Your task to perform on an android device: Open the stopwatch Image 0: 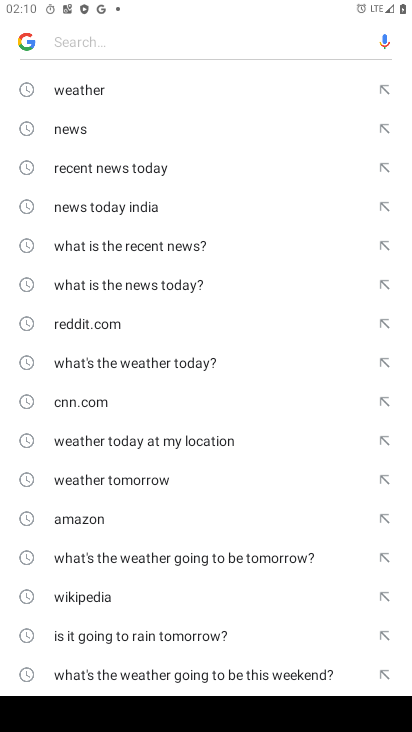
Step 0: press home button
Your task to perform on an android device: Open the stopwatch Image 1: 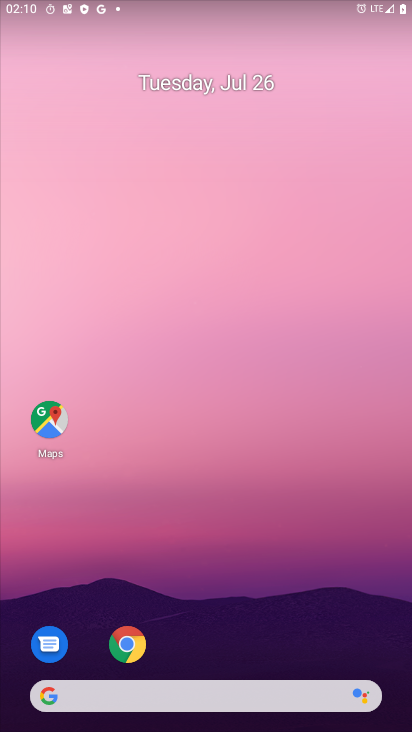
Step 1: drag from (260, 668) to (240, 43)
Your task to perform on an android device: Open the stopwatch Image 2: 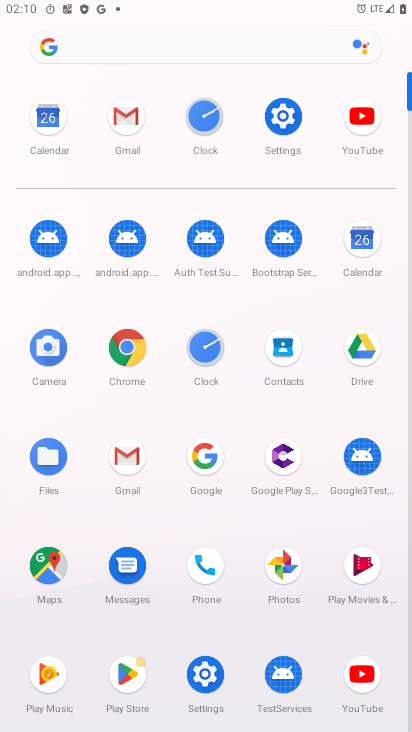
Step 2: click (195, 122)
Your task to perform on an android device: Open the stopwatch Image 3: 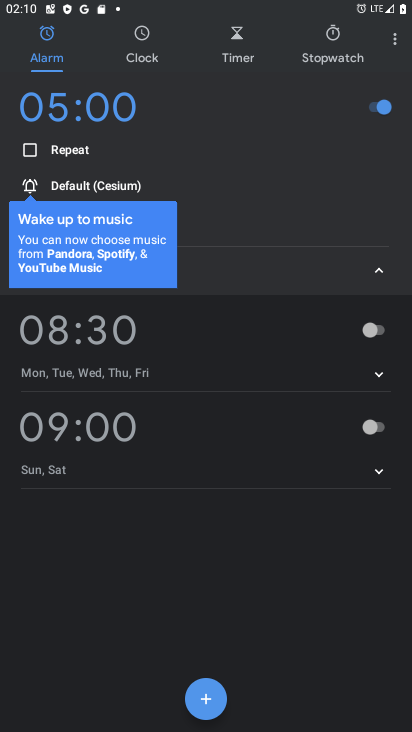
Step 3: click (338, 57)
Your task to perform on an android device: Open the stopwatch Image 4: 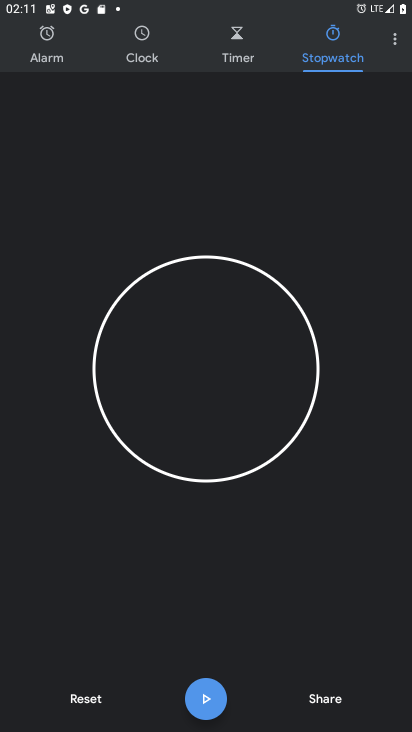
Step 4: task complete